Your task to perform on an android device: Go to privacy settings Image 0: 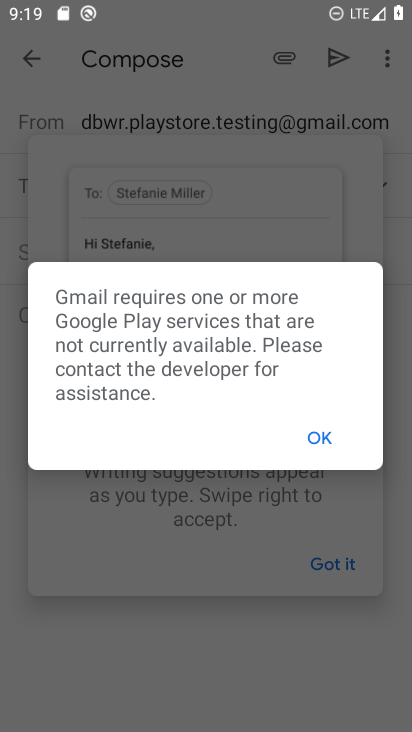
Step 0: press home button
Your task to perform on an android device: Go to privacy settings Image 1: 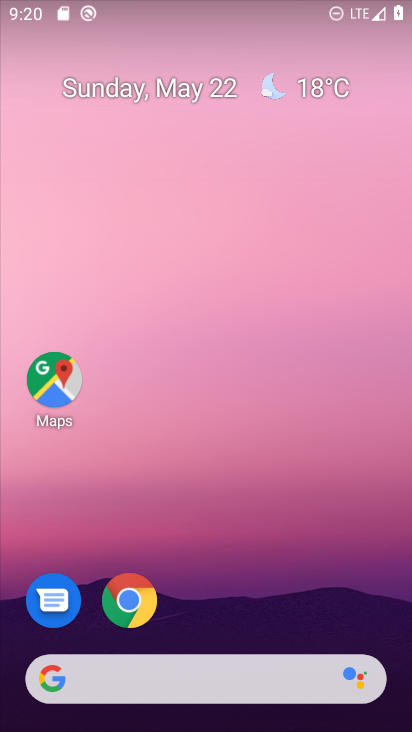
Step 1: drag from (378, 630) to (158, 103)
Your task to perform on an android device: Go to privacy settings Image 2: 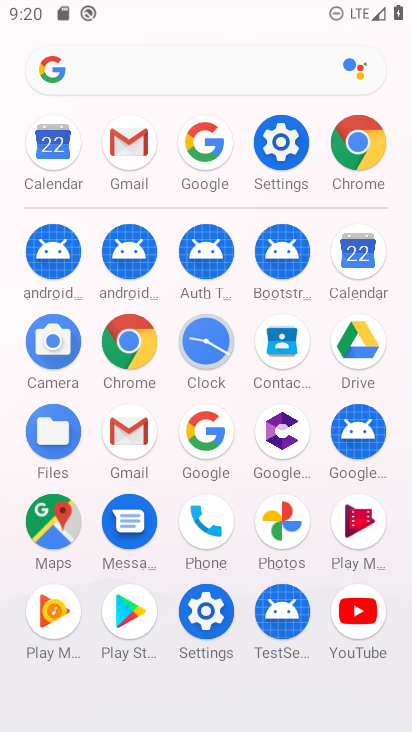
Step 2: click (203, 624)
Your task to perform on an android device: Go to privacy settings Image 3: 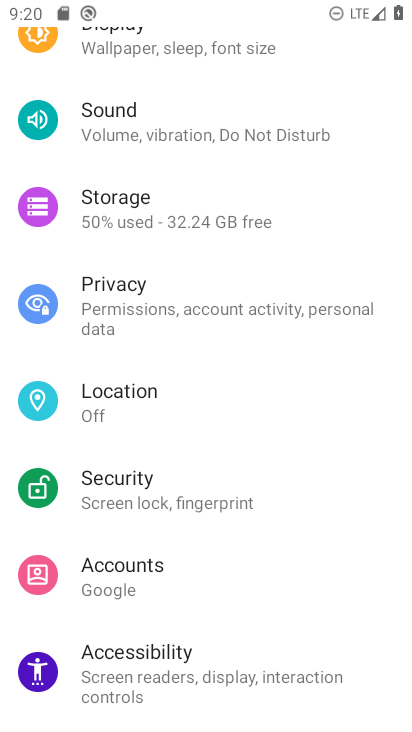
Step 3: click (131, 328)
Your task to perform on an android device: Go to privacy settings Image 4: 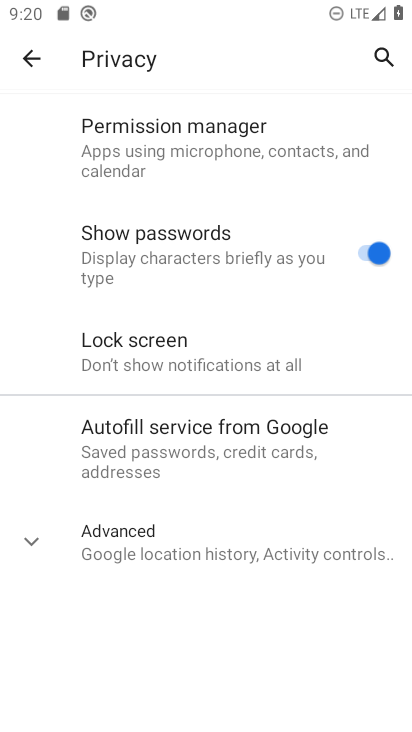
Step 4: task complete